Your task to perform on an android device: Search for razer blackwidow on bestbuy, select the first entry, add it to the cart, then select checkout. Image 0: 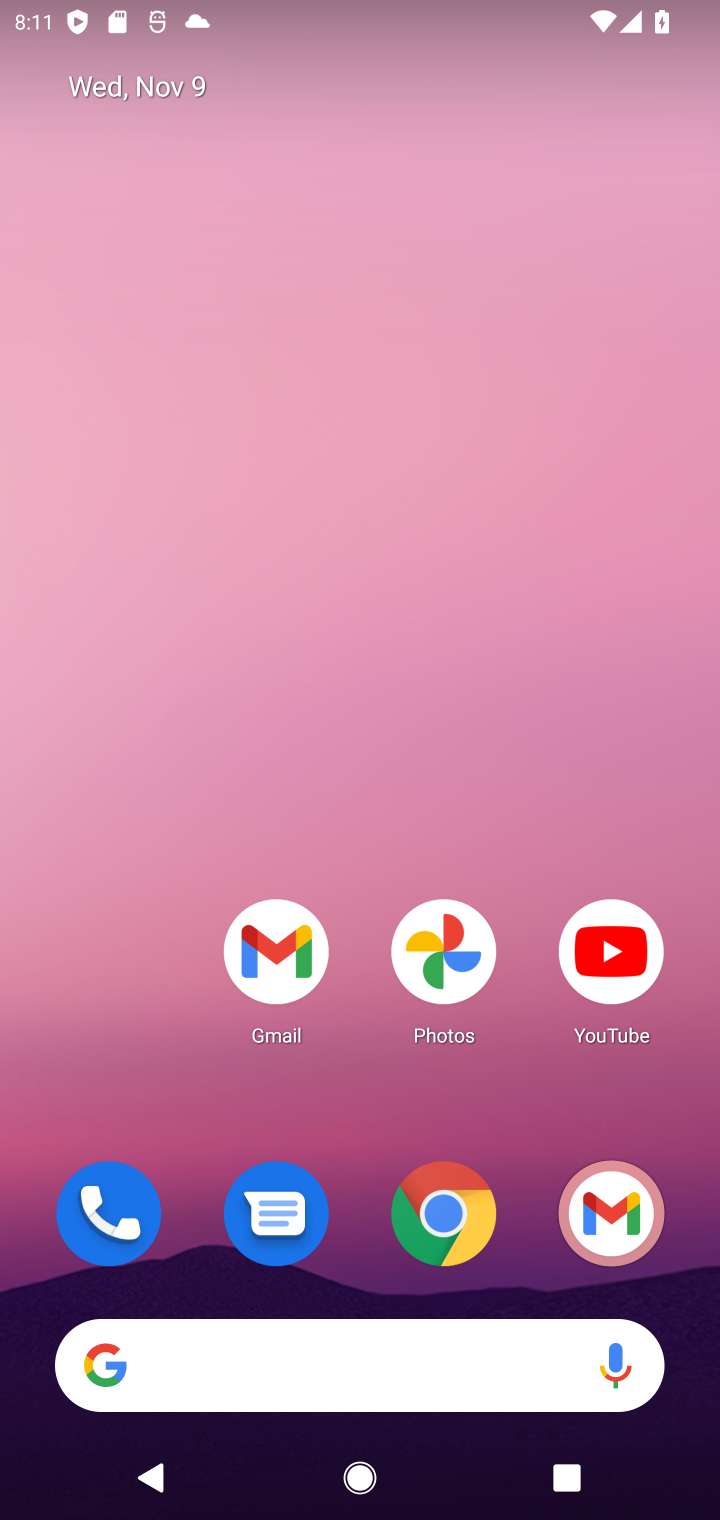
Step 0: click (431, 1231)
Your task to perform on an android device: Search for razer blackwidow on bestbuy, select the first entry, add it to the cart, then select checkout. Image 1: 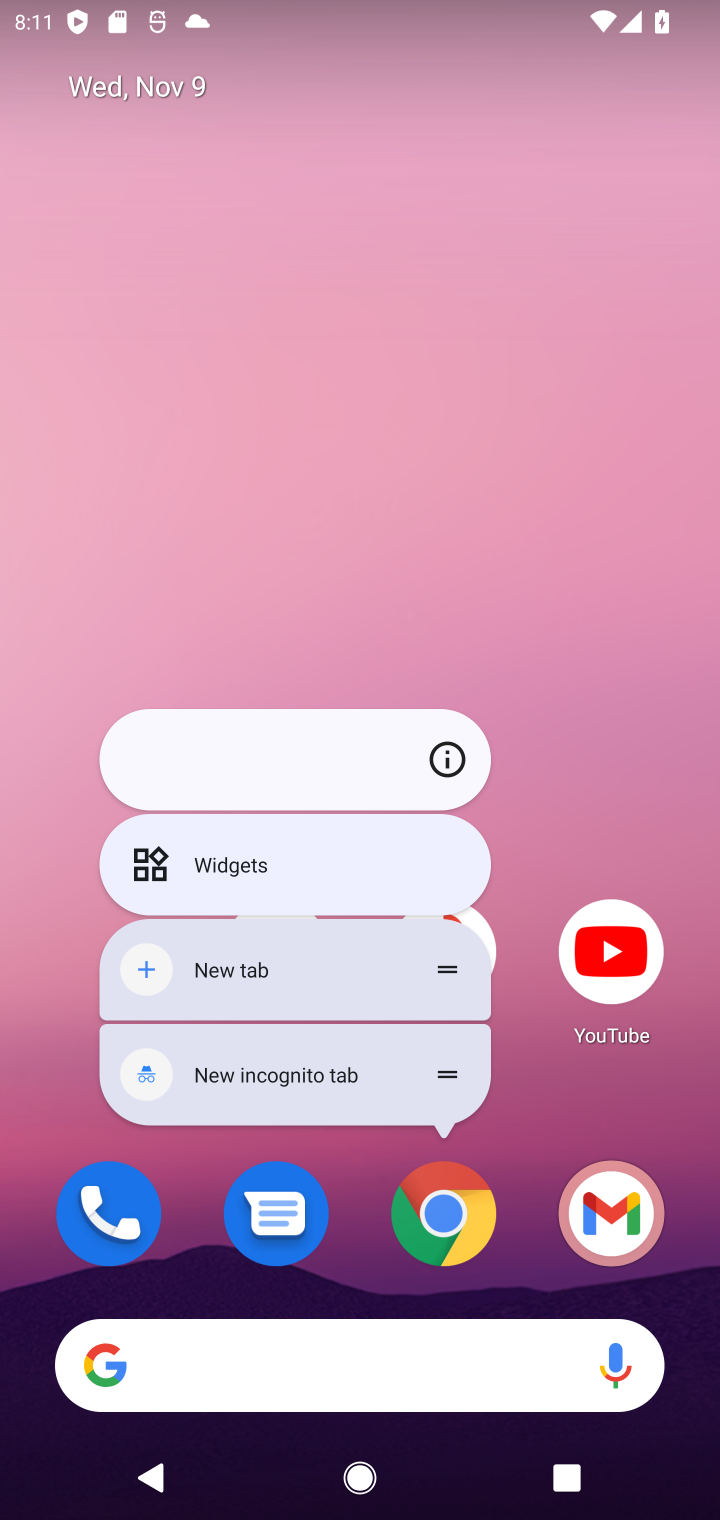
Step 1: click (431, 1231)
Your task to perform on an android device: Search for razer blackwidow on bestbuy, select the first entry, add it to the cart, then select checkout. Image 2: 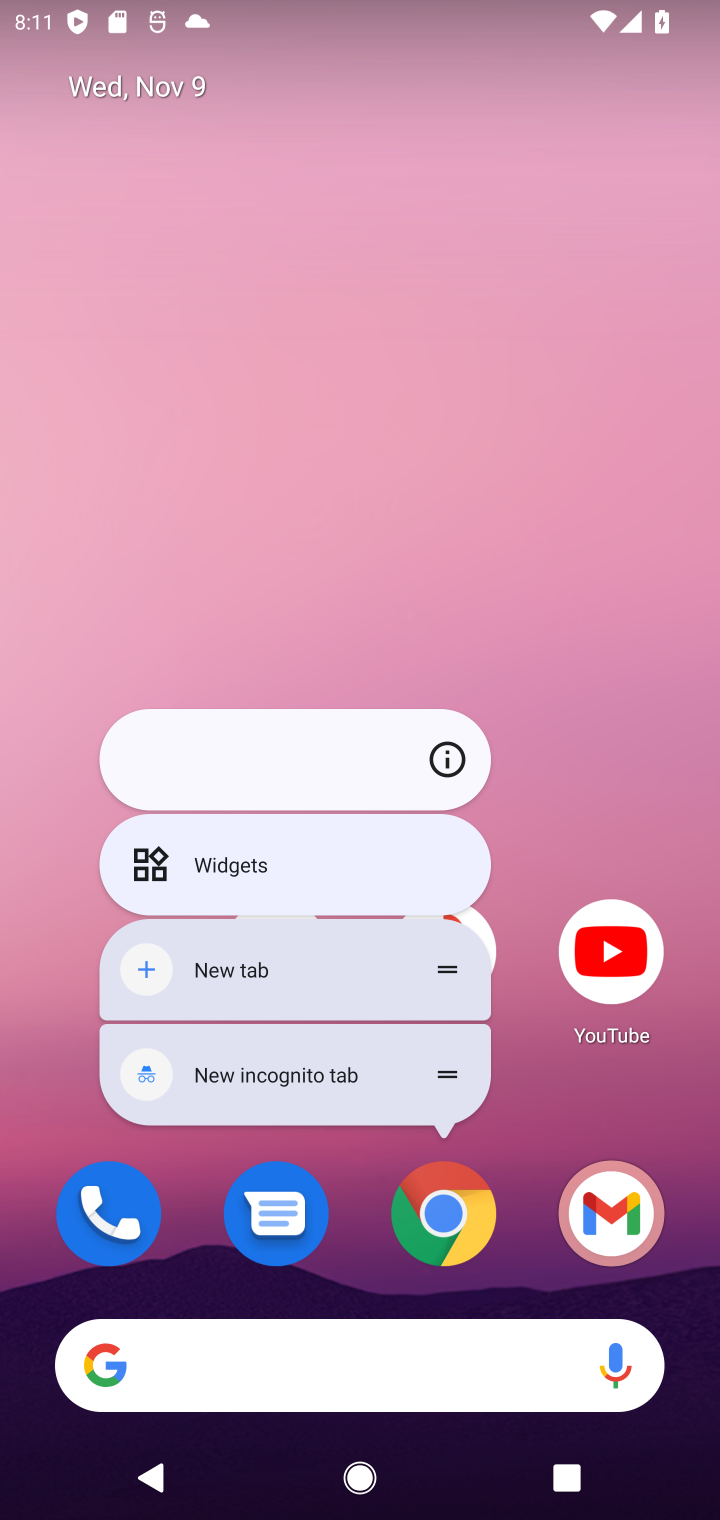
Step 2: click (429, 1229)
Your task to perform on an android device: Search for razer blackwidow on bestbuy, select the first entry, add it to the cart, then select checkout. Image 3: 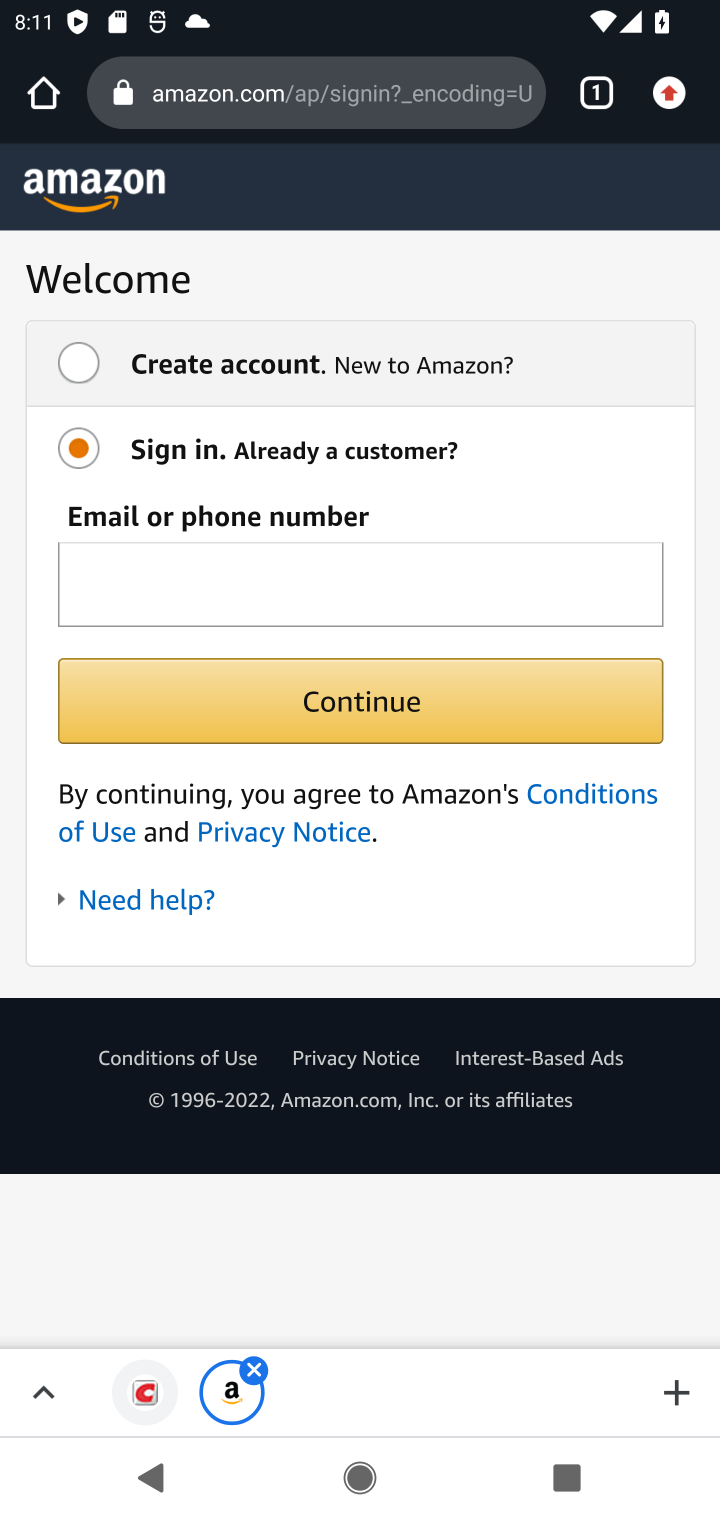
Step 3: click (223, 96)
Your task to perform on an android device: Search for razer blackwidow on bestbuy, select the first entry, add it to the cart, then select checkout. Image 4: 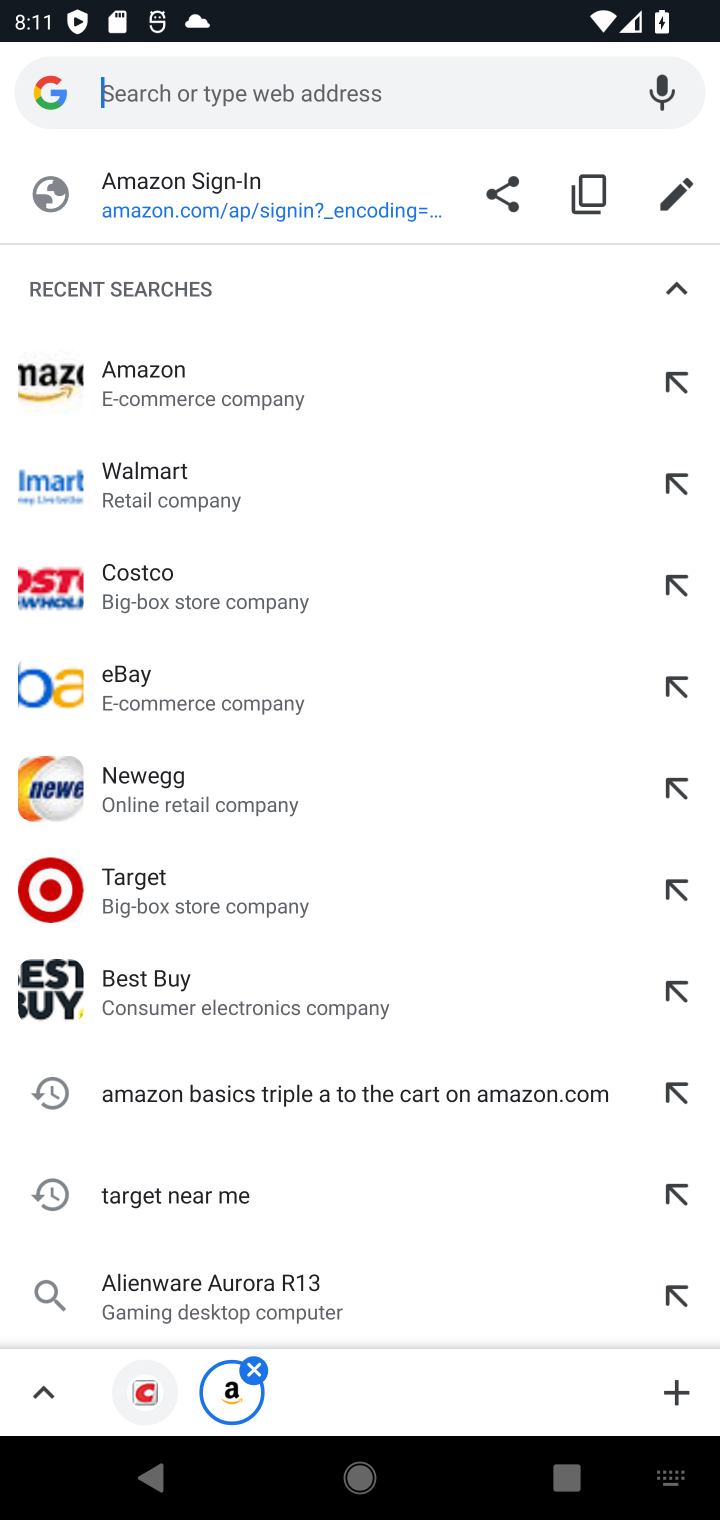
Step 4: click (153, 977)
Your task to perform on an android device: Search for razer blackwidow on bestbuy, select the first entry, add it to the cart, then select checkout. Image 5: 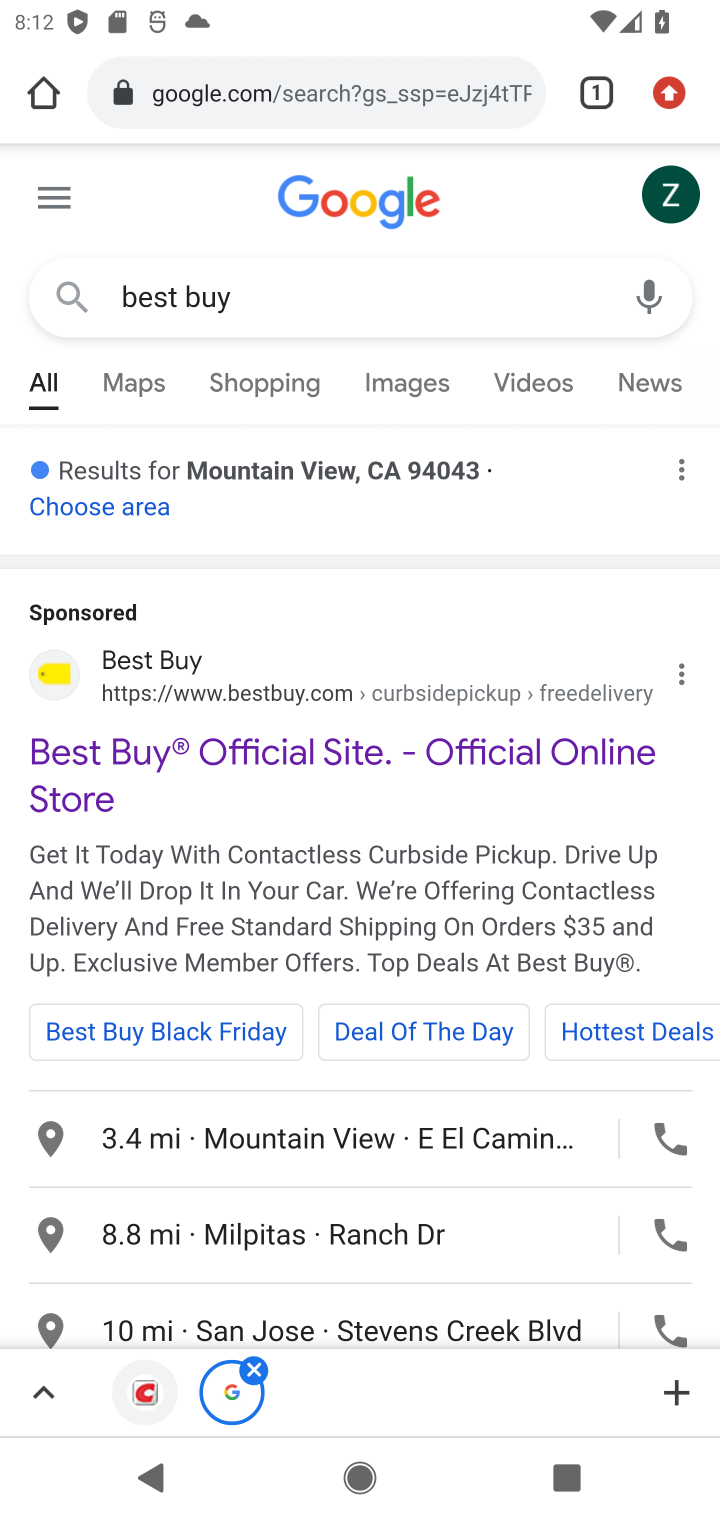
Step 5: click (236, 746)
Your task to perform on an android device: Search for razer blackwidow on bestbuy, select the first entry, add it to the cart, then select checkout. Image 6: 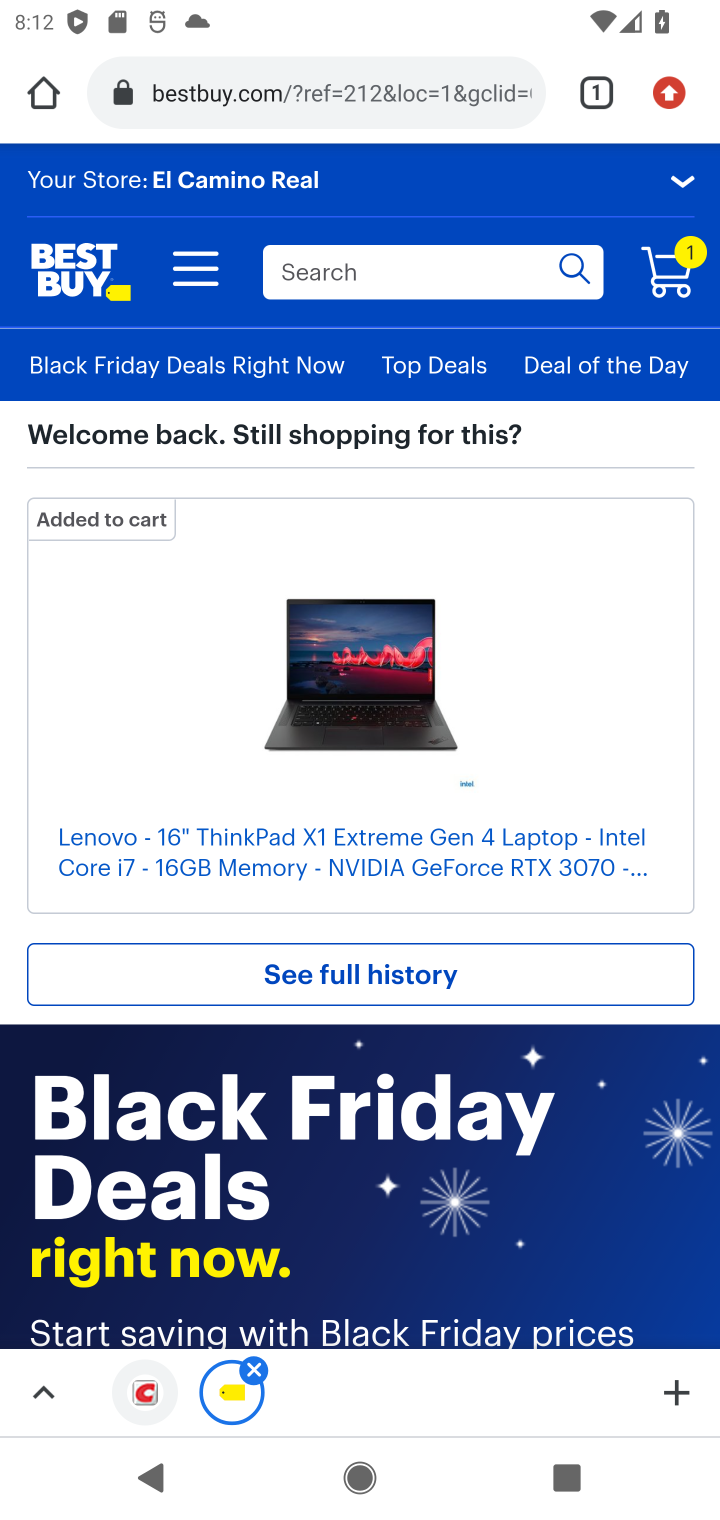
Step 6: click (324, 280)
Your task to perform on an android device: Search for razer blackwidow on bestbuy, select the first entry, add it to the cart, then select checkout. Image 7: 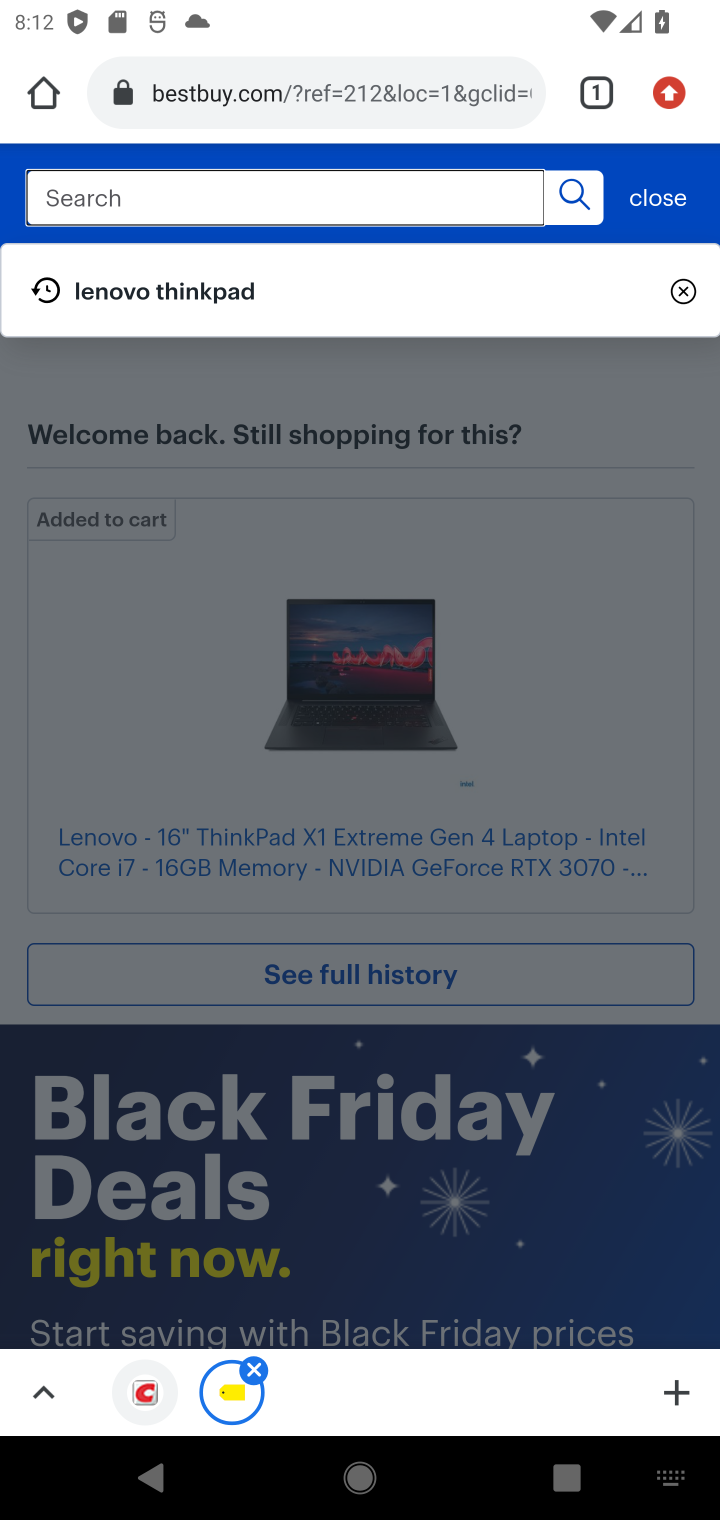
Step 7: type "razer blackwidow"
Your task to perform on an android device: Search for razer blackwidow on bestbuy, select the first entry, add it to the cart, then select checkout. Image 8: 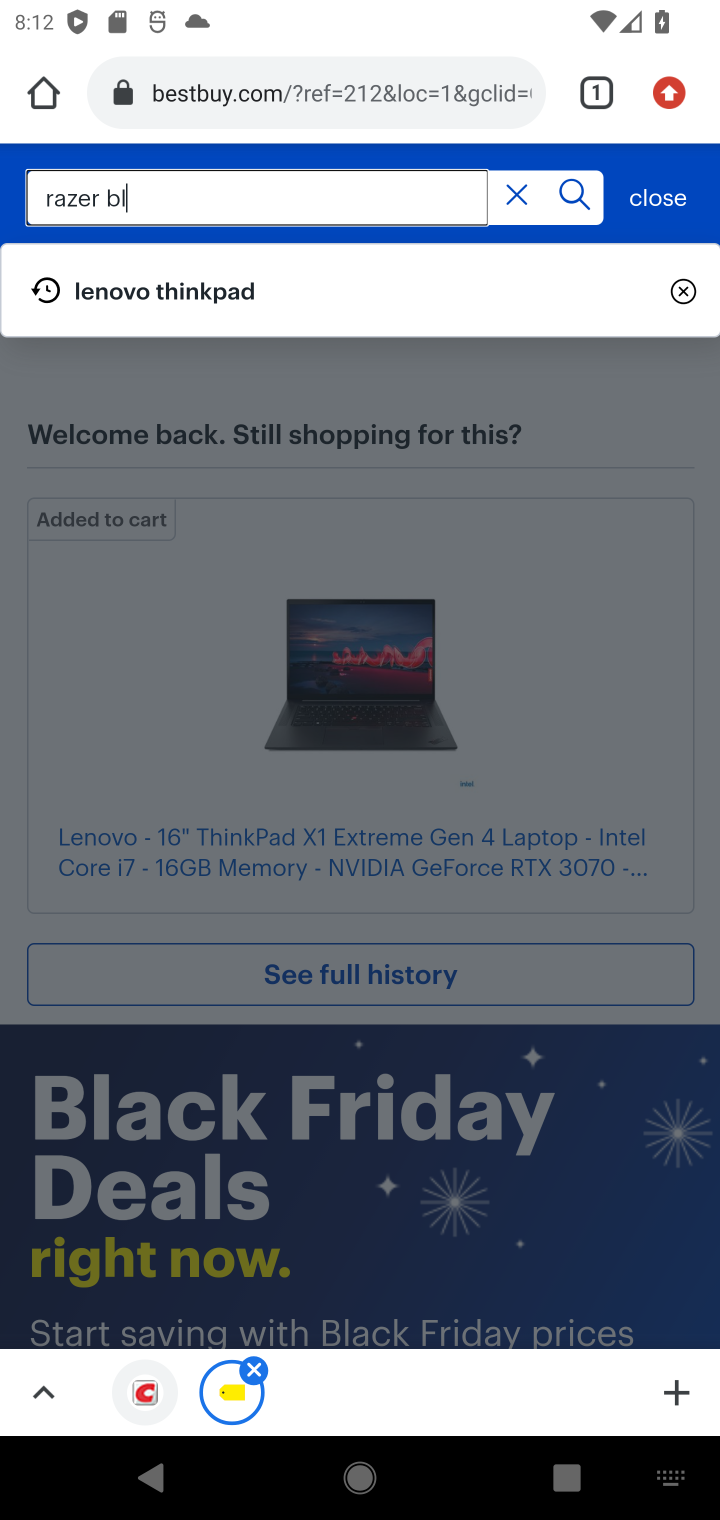
Step 8: type ""
Your task to perform on an android device: Search for razer blackwidow on bestbuy, select the first entry, add it to the cart, then select checkout. Image 9: 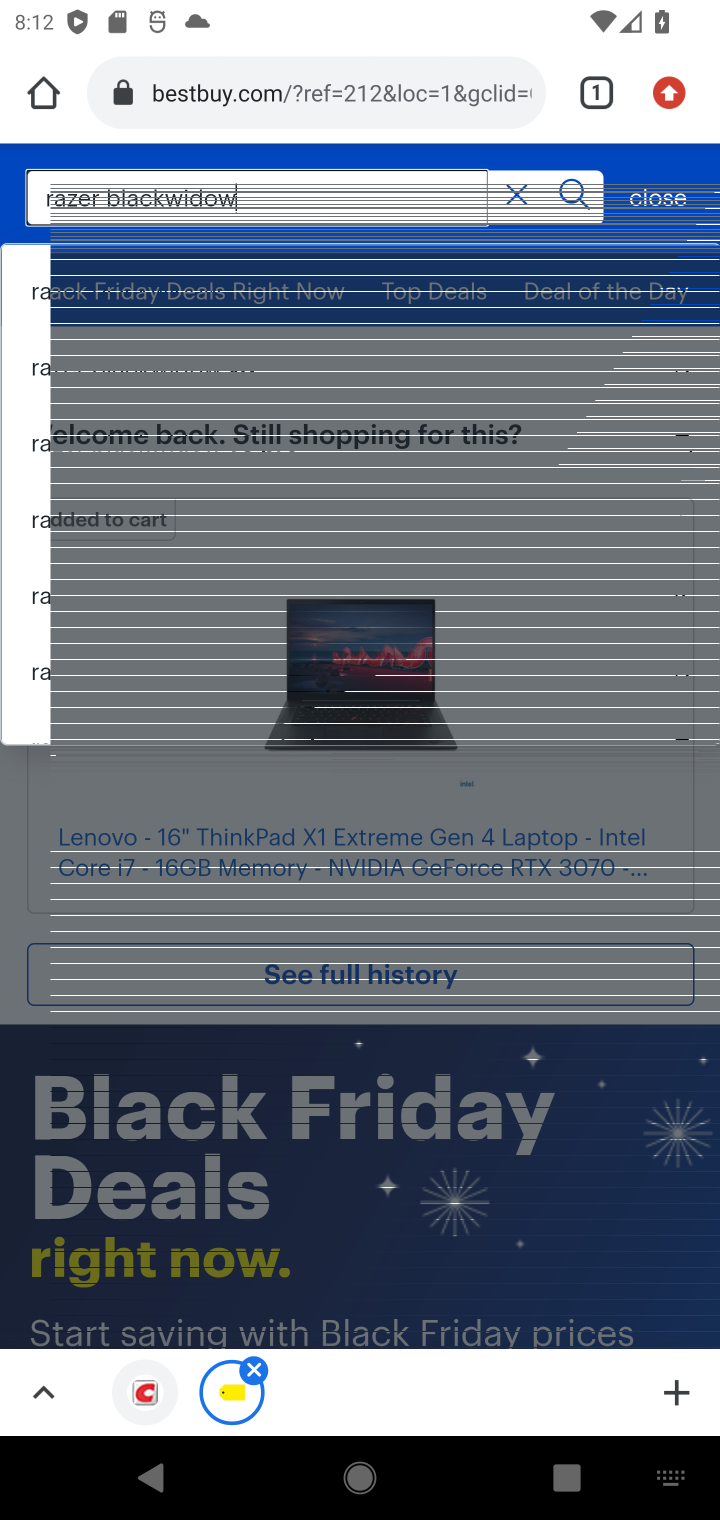
Step 9: click (162, 367)
Your task to perform on an android device: Search for razer blackwidow on bestbuy, select the first entry, add it to the cart, then select checkout. Image 10: 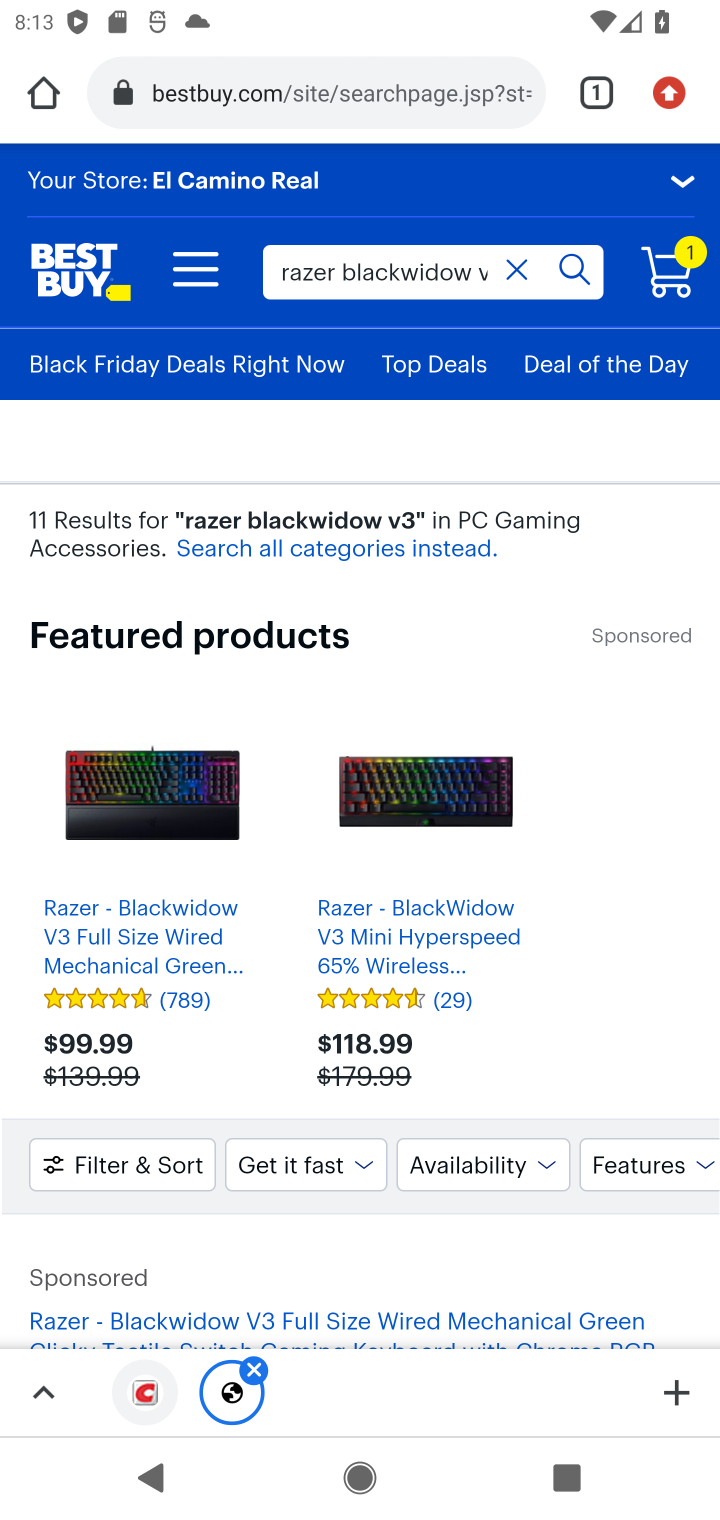
Step 10: drag from (213, 1107) to (304, 592)
Your task to perform on an android device: Search for razer blackwidow on bestbuy, select the first entry, add it to the cart, then select checkout. Image 11: 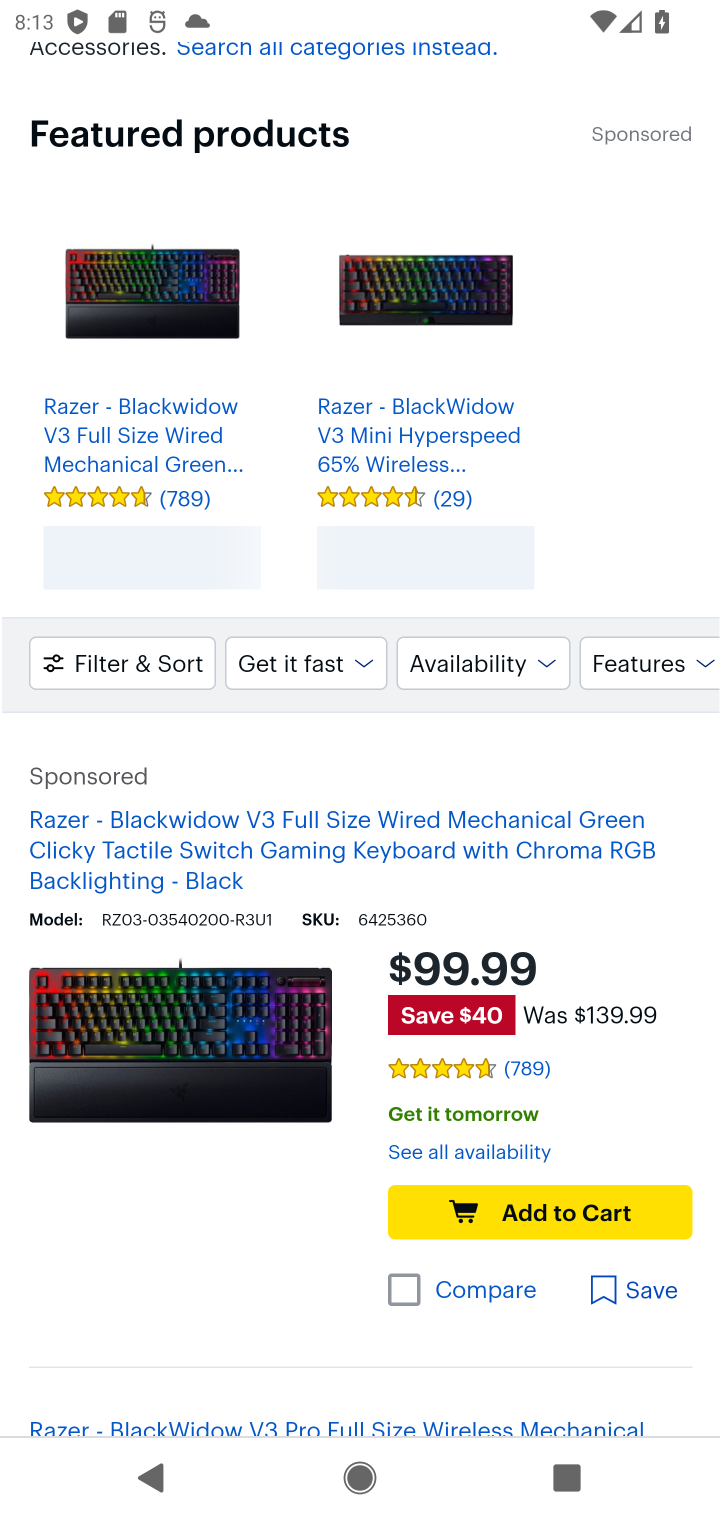
Step 11: click (158, 830)
Your task to perform on an android device: Search for razer blackwidow on bestbuy, select the first entry, add it to the cart, then select checkout. Image 12: 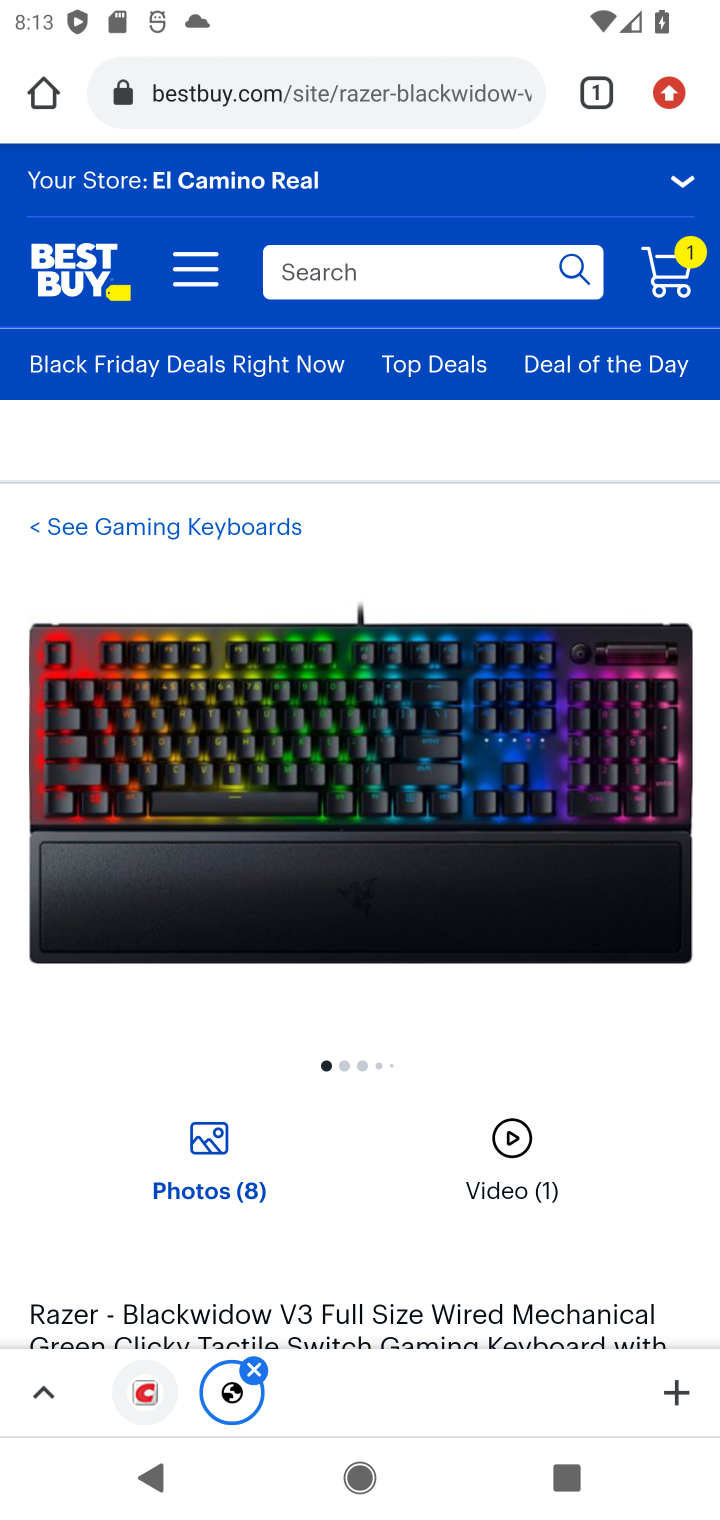
Step 12: drag from (351, 957) to (373, 504)
Your task to perform on an android device: Search for razer blackwidow on bestbuy, select the first entry, add it to the cart, then select checkout. Image 13: 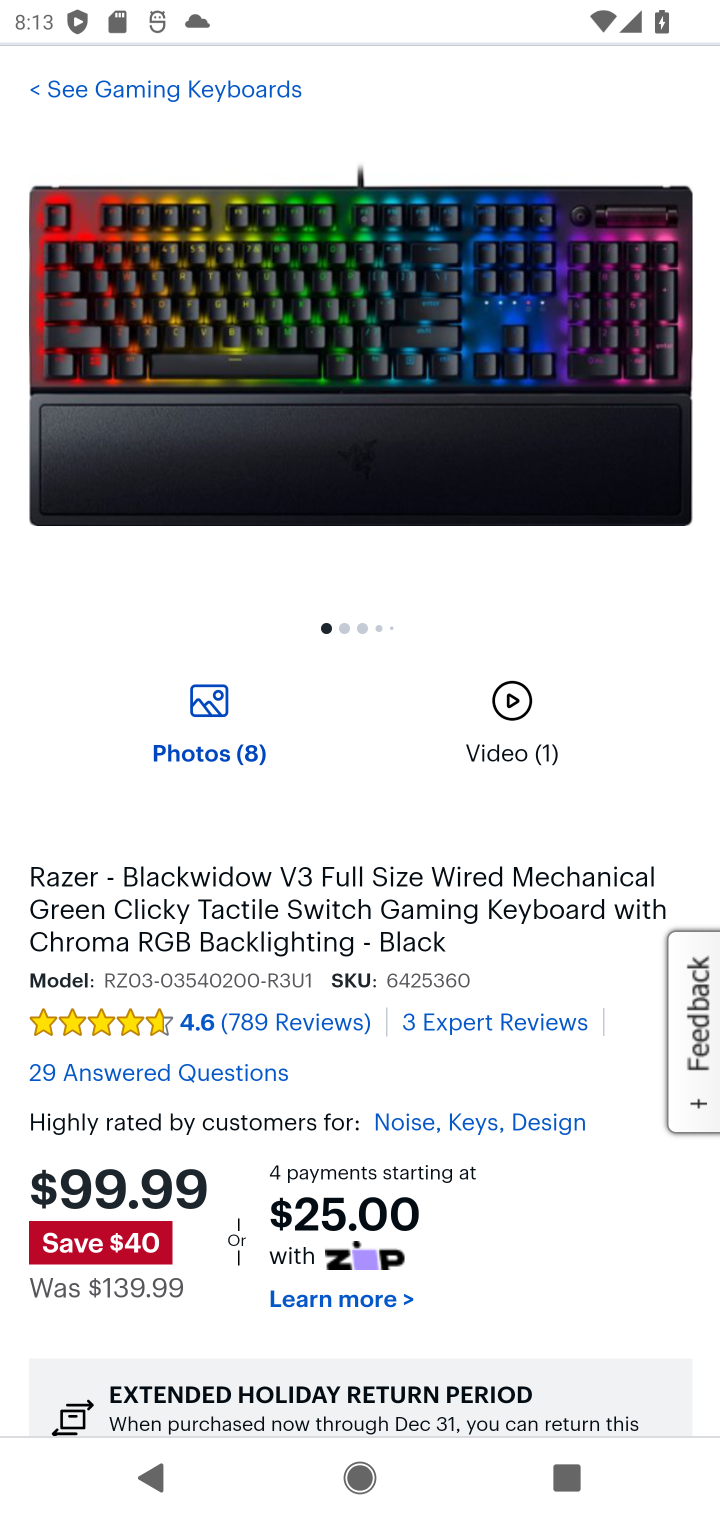
Step 13: drag from (287, 570) to (359, 357)
Your task to perform on an android device: Search for razer blackwidow on bestbuy, select the first entry, add it to the cart, then select checkout. Image 14: 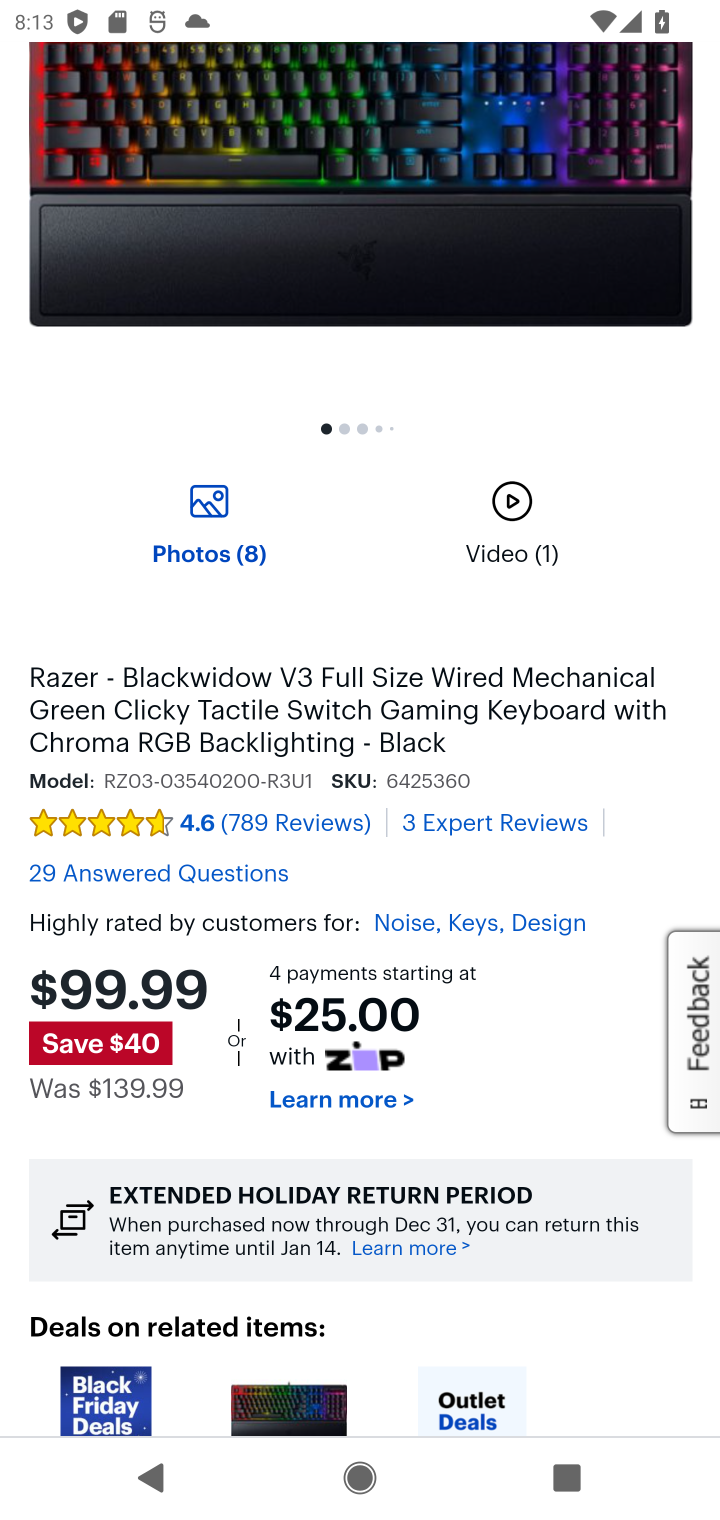
Step 14: drag from (392, 708) to (392, 431)
Your task to perform on an android device: Search for razer blackwidow on bestbuy, select the first entry, add it to the cart, then select checkout. Image 15: 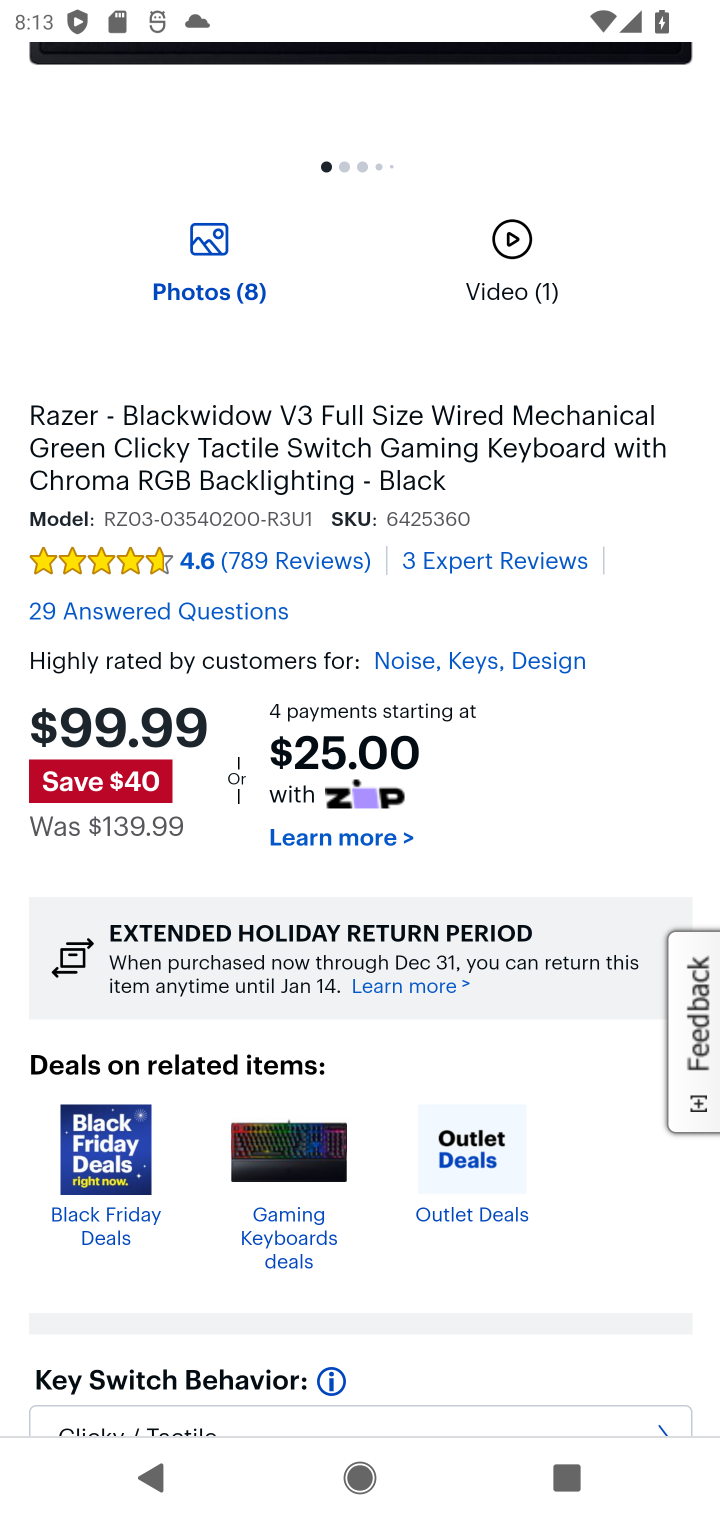
Step 15: drag from (503, 1106) to (462, 292)
Your task to perform on an android device: Search for razer blackwidow on bestbuy, select the first entry, add it to the cart, then select checkout. Image 16: 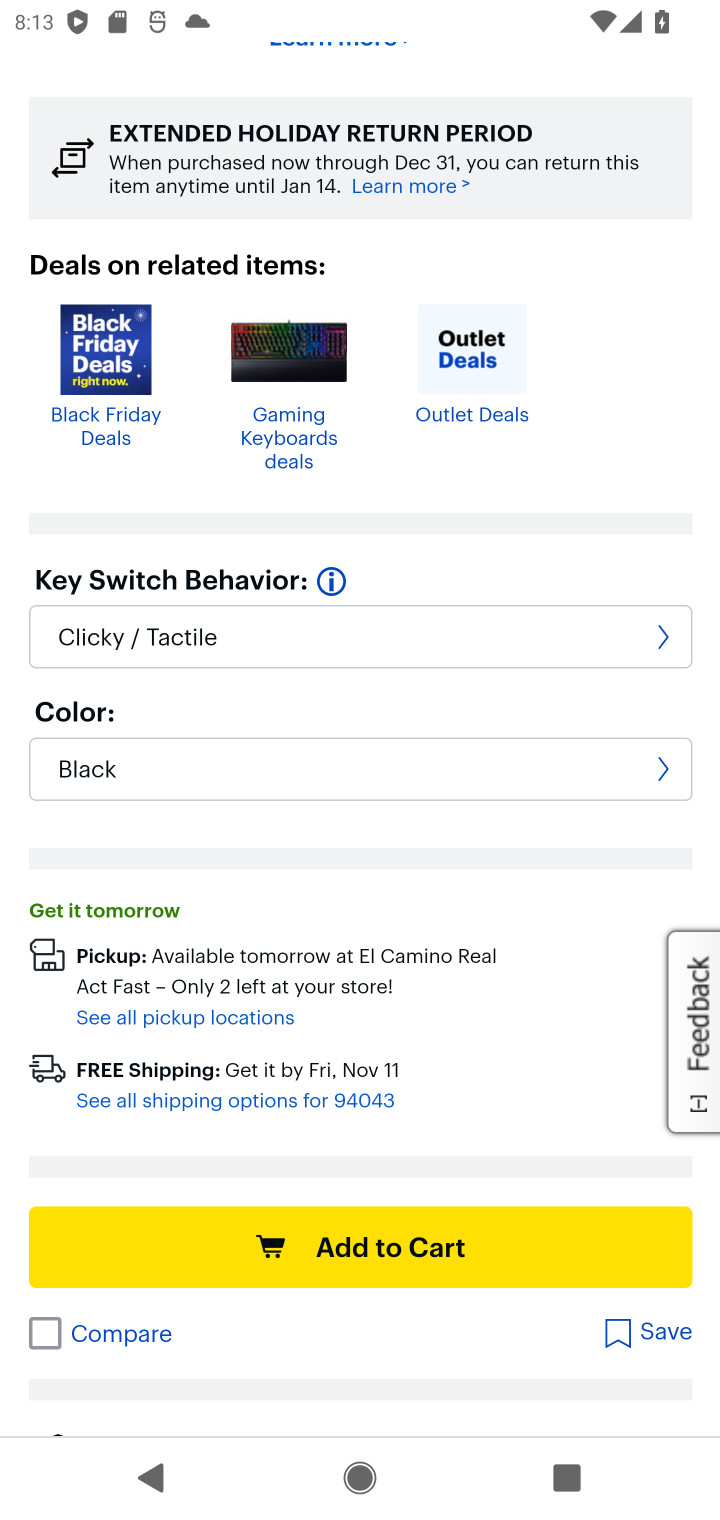
Step 16: click (460, 1251)
Your task to perform on an android device: Search for razer blackwidow on bestbuy, select the first entry, add it to the cart, then select checkout. Image 17: 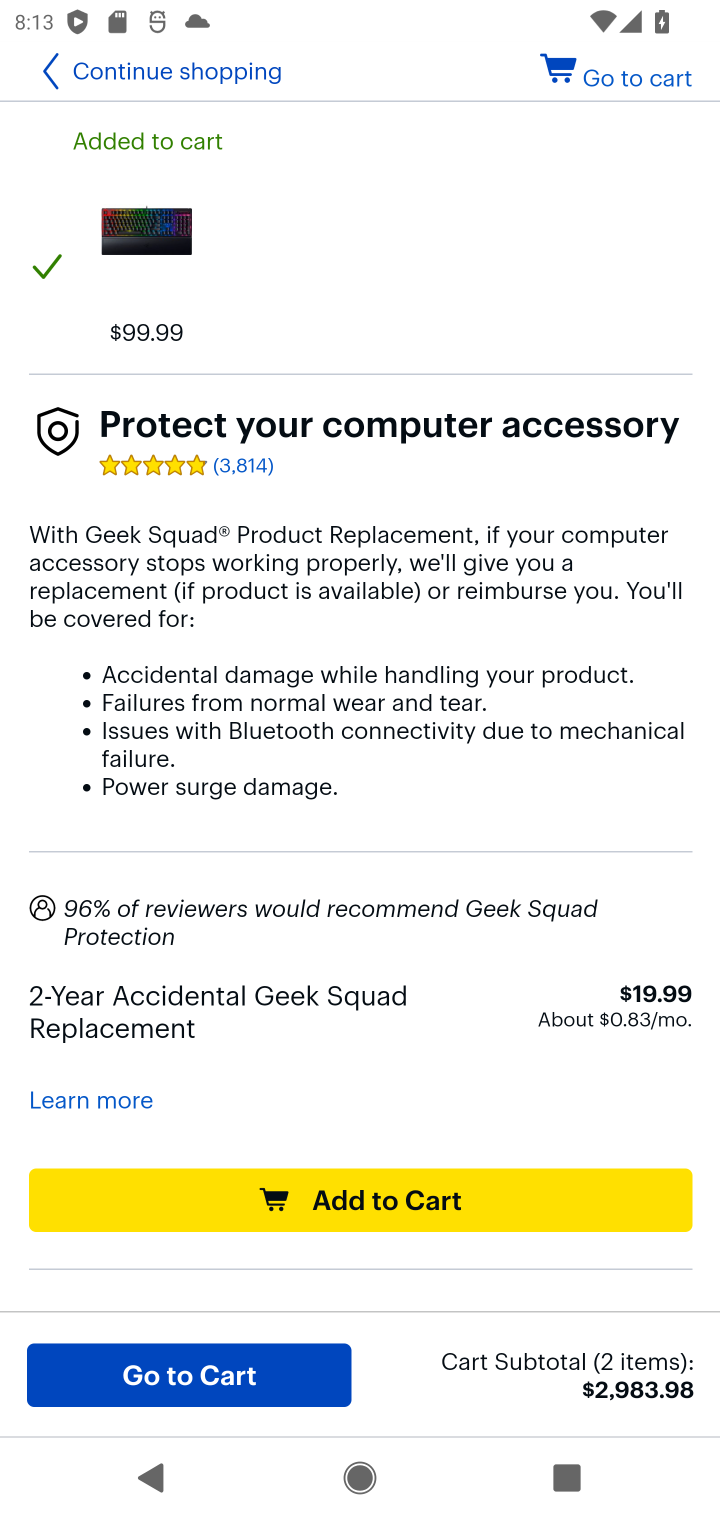
Step 17: click (351, 1189)
Your task to perform on an android device: Search for razer blackwidow on bestbuy, select the first entry, add it to the cart, then select checkout. Image 18: 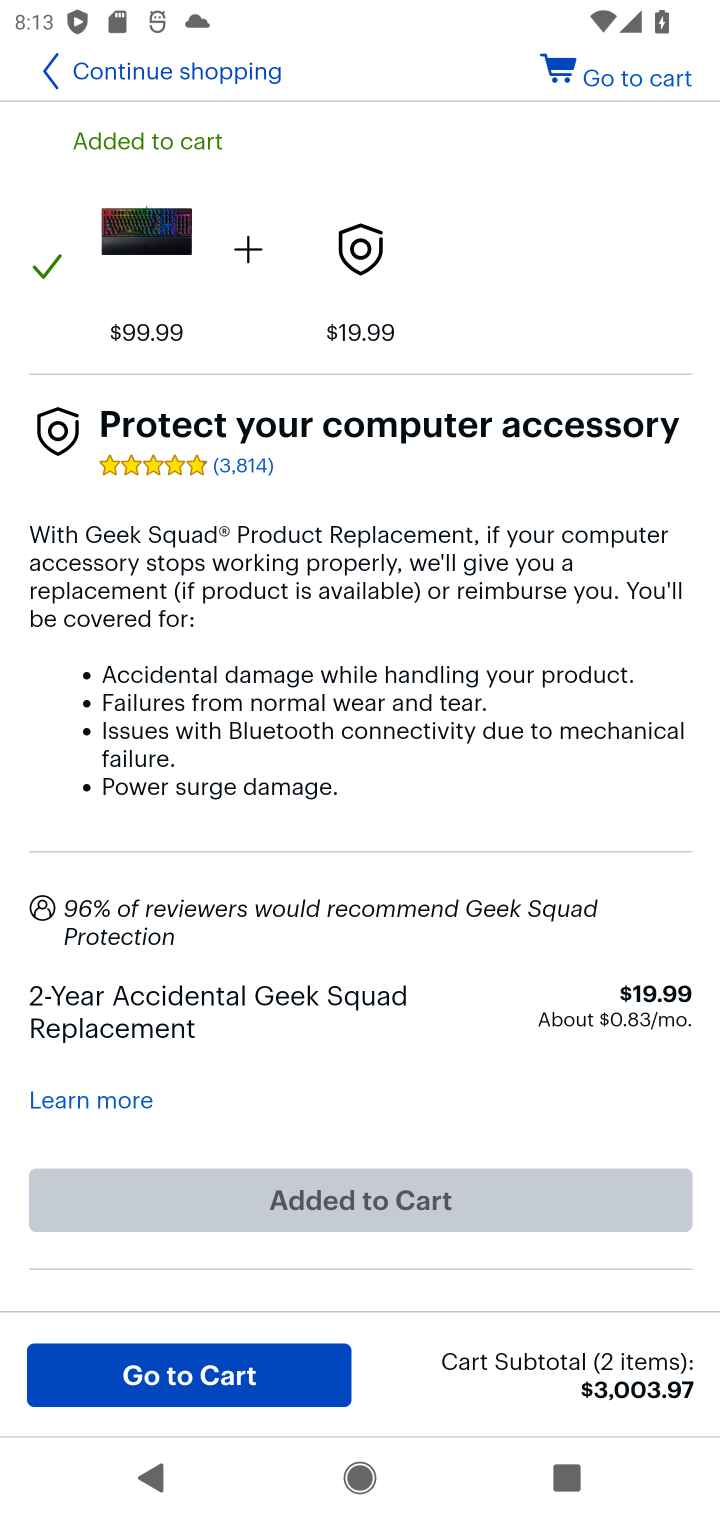
Step 18: click (250, 1366)
Your task to perform on an android device: Search for razer blackwidow on bestbuy, select the first entry, add it to the cart, then select checkout. Image 19: 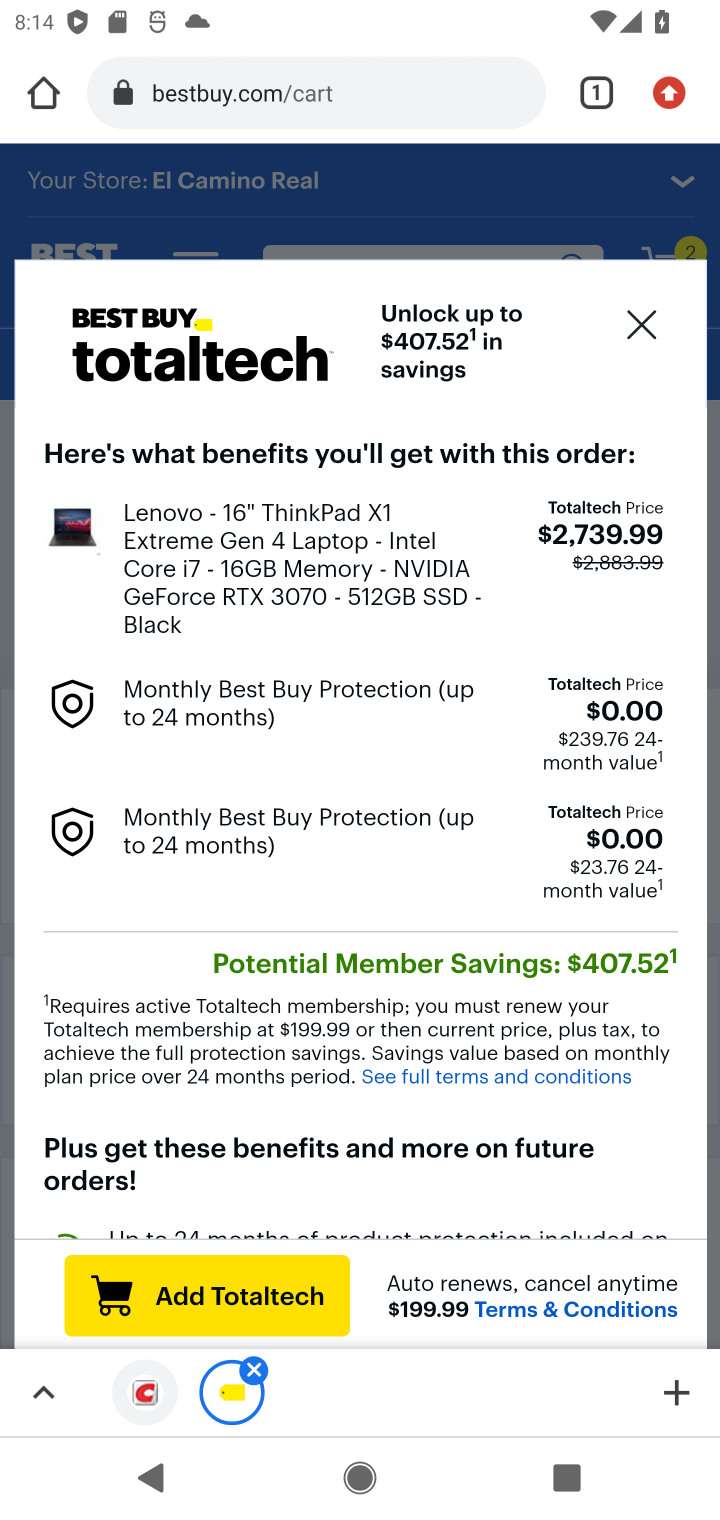
Step 19: click (641, 320)
Your task to perform on an android device: Search for razer blackwidow on bestbuy, select the first entry, add it to the cart, then select checkout. Image 20: 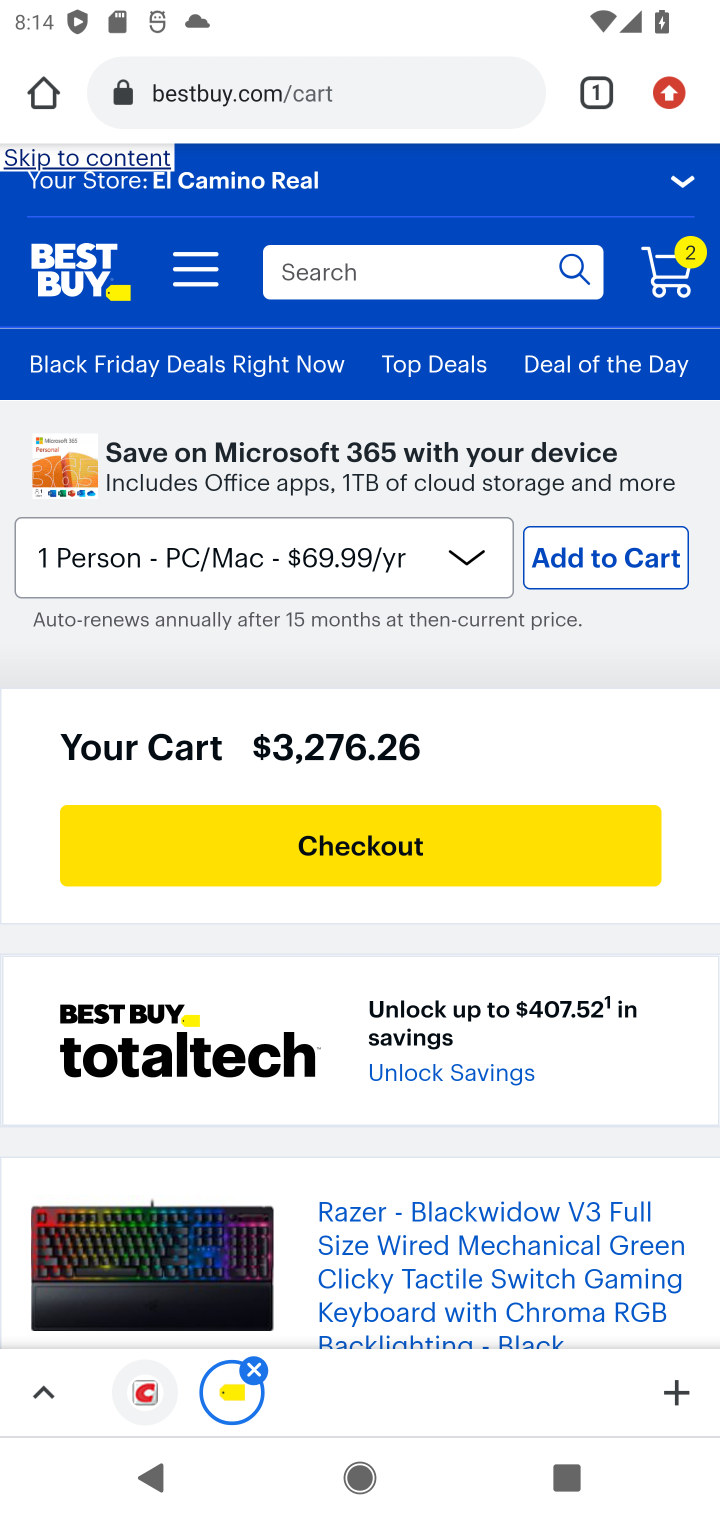
Step 20: click (364, 853)
Your task to perform on an android device: Search for razer blackwidow on bestbuy, select the first entry, add it to the cart, then select checkout. Image 21: 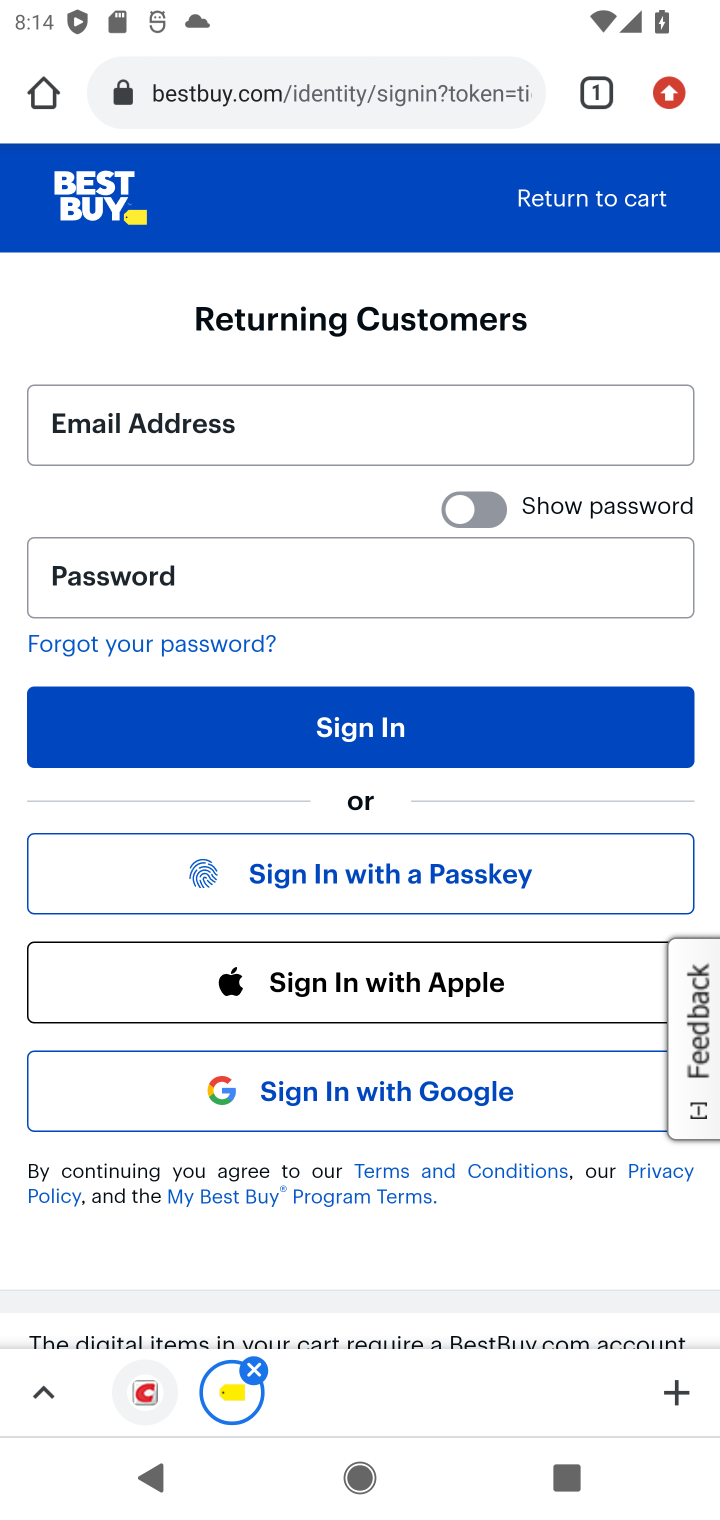
Step 21: task complete